Your task to perform on an android device: add a label to a message in the gmail app Image 0: 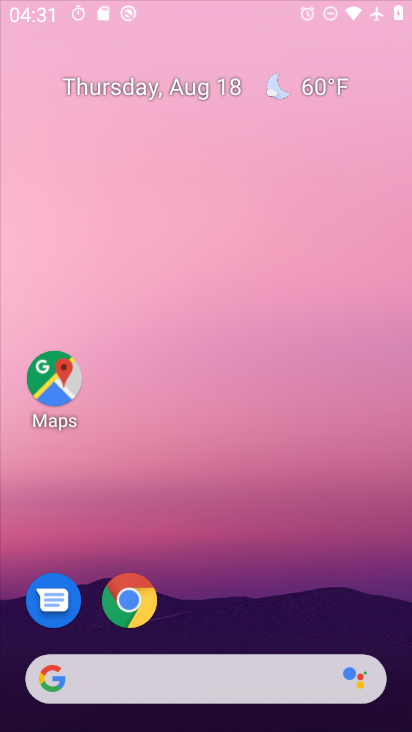
Step 0: press home button
Your task to perform on an android device: add a label to a message in the gmail app Image 1: 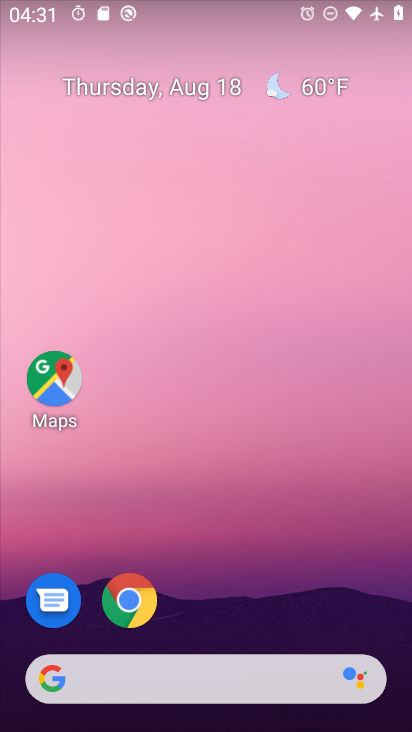
Step 1: drag from (261, 602) to (339, 145)
Your task to perform on an android device: add a label to a message in the gmail app Image 2: 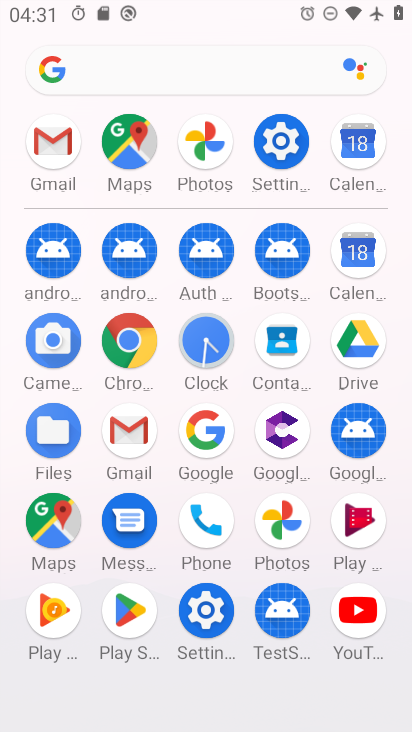
Step 2: click (71, 146)
Your task to perform on an android device: add a label to a message in the gmail app Image 3: 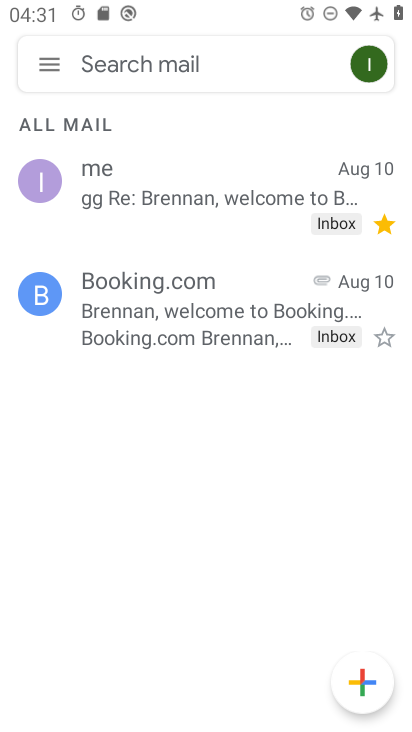
Step 3: click (203, 309)
Your task to perform on an android device: add a label to a message in the gmail app Image 4: 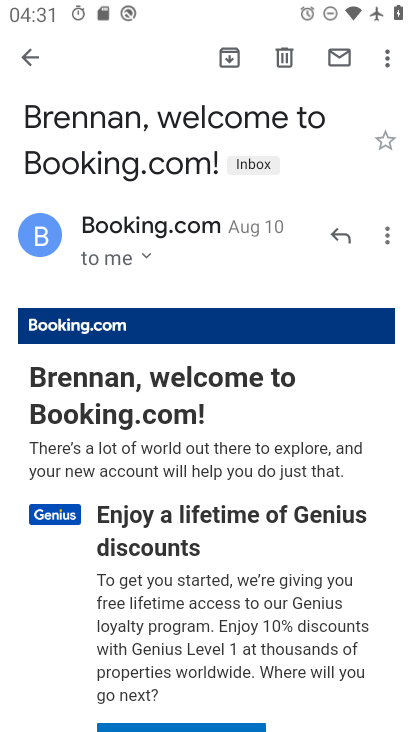
Step 4: click (388, 67)
Your task to perform on an android device: add a label to a message in the gmail app Image 5: 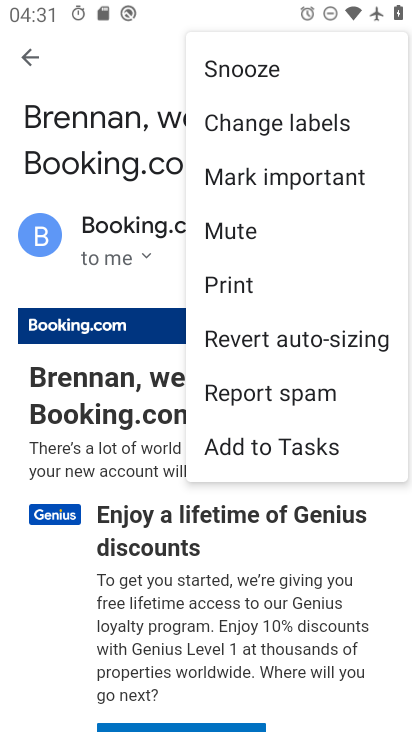
Step 5: click (271, 126)
Your task to perform on an android device: add a label to a message in the gmail app Image 6: 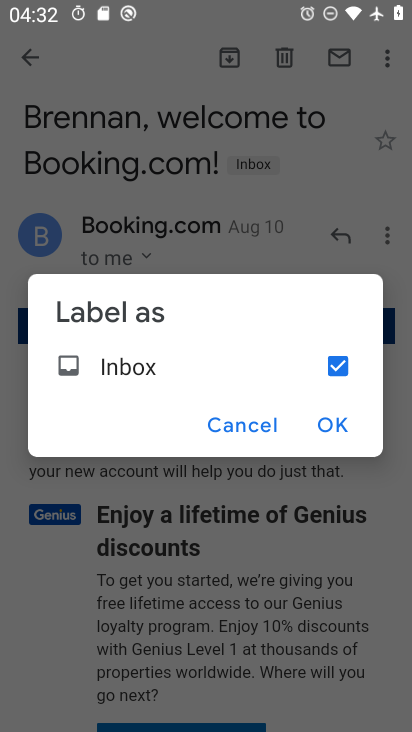
Step 6: click (346, 425)
Your task to perform on an android device: add a label to a message in the gmail app Image 7: 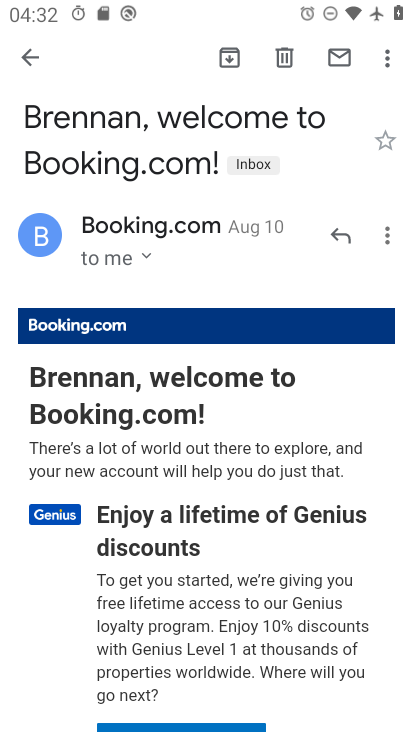
Step 7: task complete